Your task to perform on an android device: Is it going to rain tomorrow? Image 0: 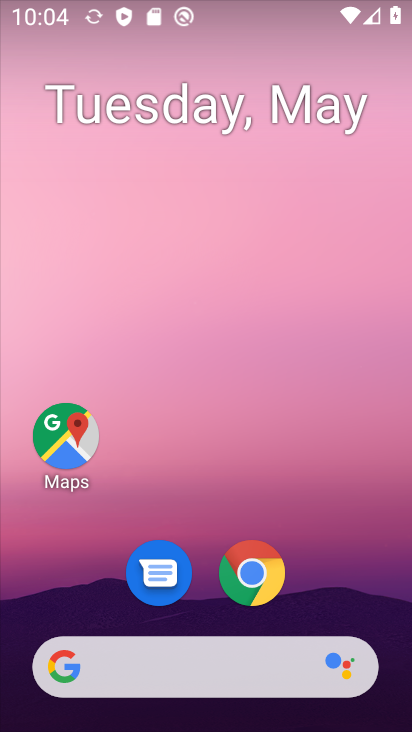
Step 0: click (218, 665)
Your task to perform on an android device: Is it going to rain tomorrow? Image 1: 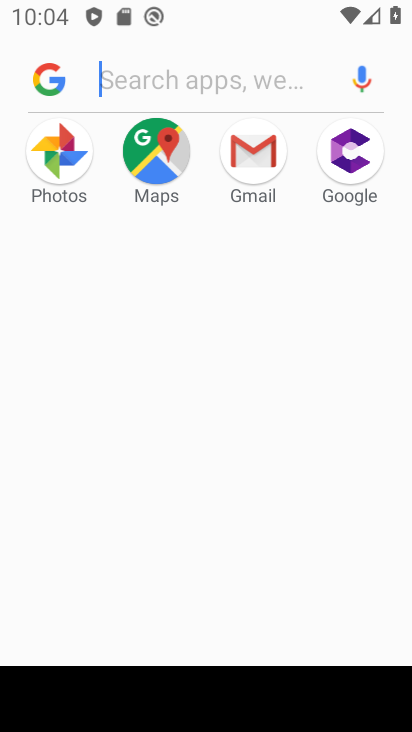
Step 1: type "weather tomorrow"
Your task to perform on an android device: Is it going to rain tomorrow? Image 2: 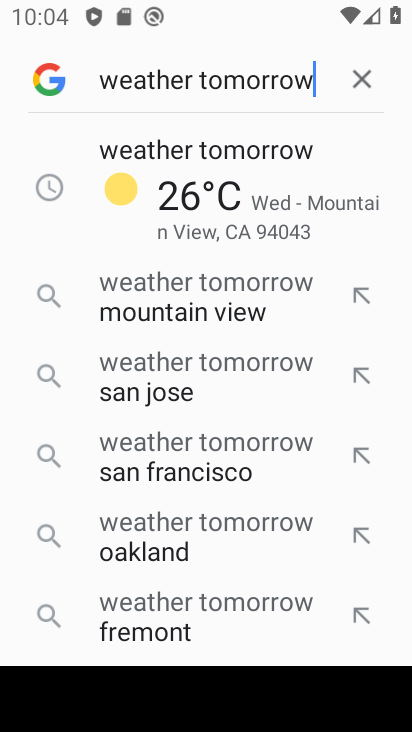
Step 2: click (261, 175)
Your task to perform on an android device: Is it going to rain tomorrow? Image 3: 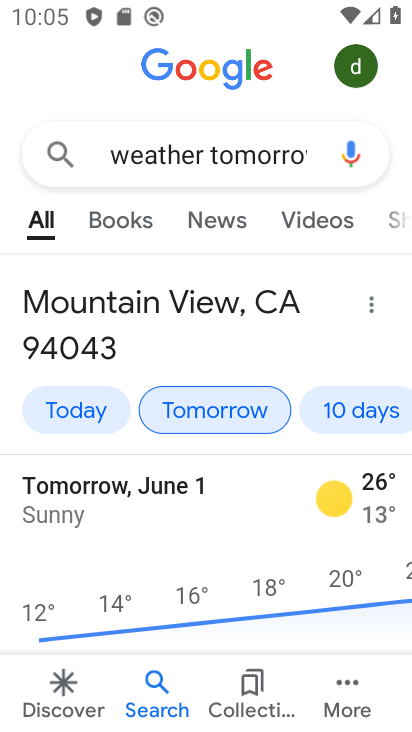
Step 3: task complete